Your task to perform on an android device: Open calendar and show me the first week of next month Image 0: 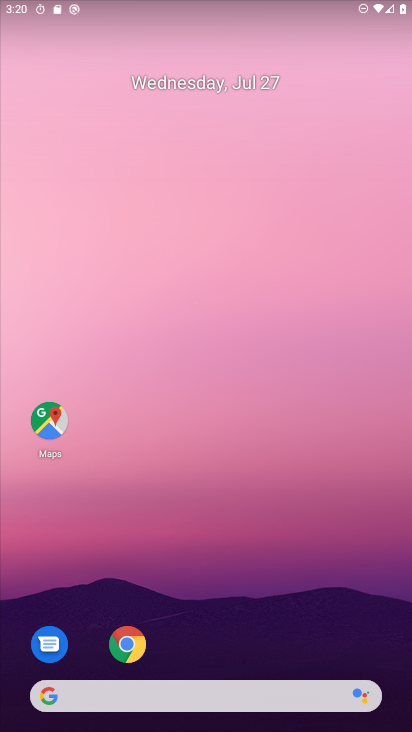
Step 0: drag from (228, 638) to (174, 6)
Your task to perform on an android device: Open calendar and show me the first week of next month Image 1: 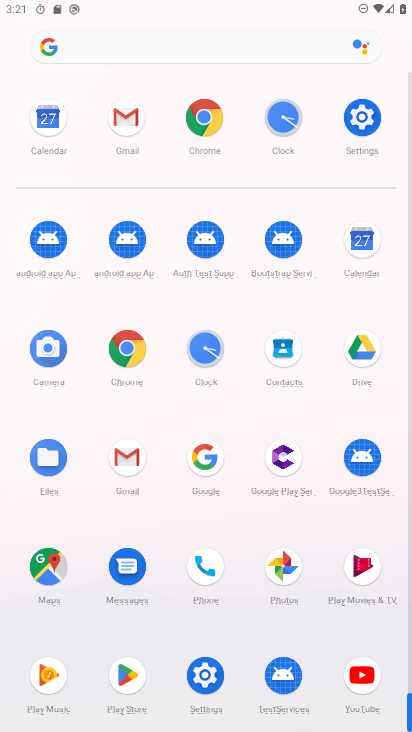
Step 1: click (368, 239)
Your task to perform on an android device: Open calendar and show me the first week of next month Image 2: 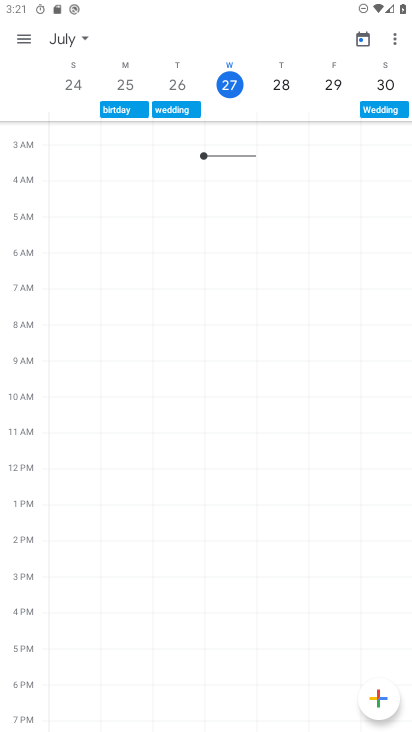
Step 2: task complete